Your task to perform on an android device: Go to internet settings Image 0: 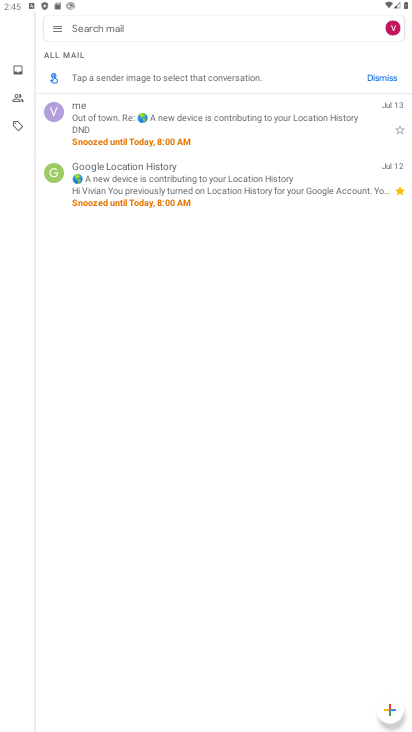
Step 0: press home button
Your task to perform on an android device: Go to internet settings Image 1: 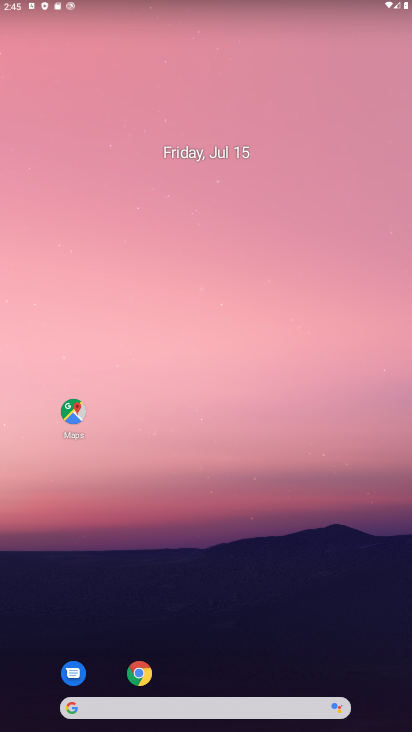
Step 1: drag from (374, 662) to (249, 56)
Your task to perform on an android device: Go to internet settings Image 2: 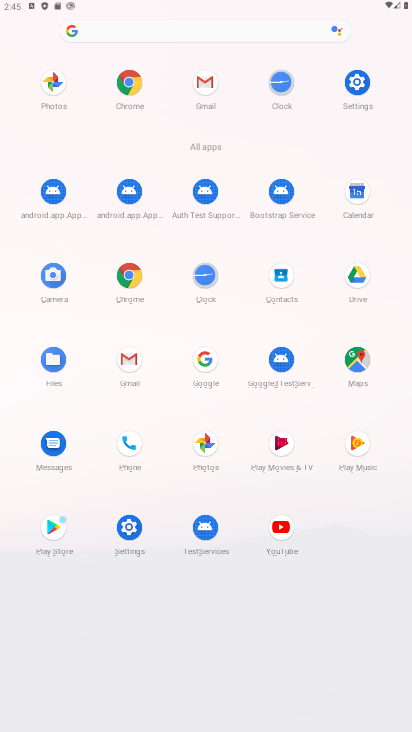
Step 2: click (129, 522)
Your task to perform on an android device: Go to internet settings Image 3: 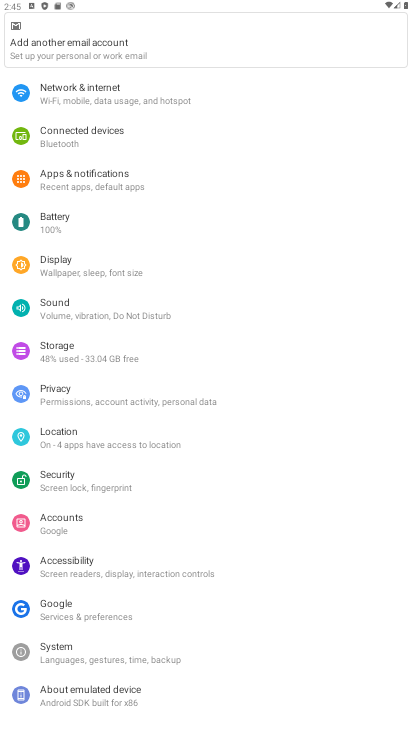
Step 3: click (88, 88)
Your task to perform on an android device: Go to internet settings Image 4: 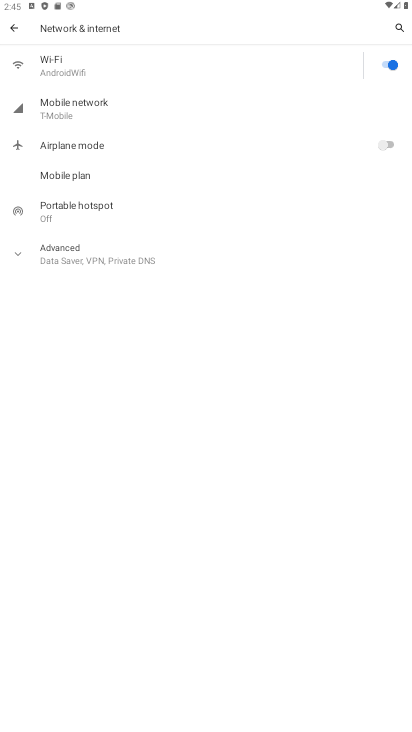
Step 4: click (53, 67)
Your task to perform on an android device: Go to internet settings Image 5: 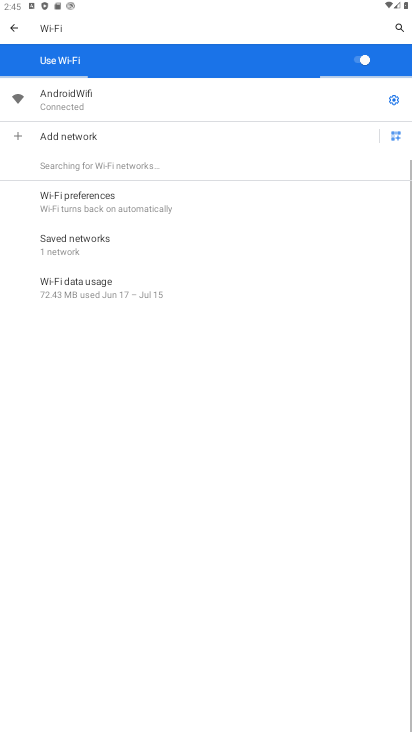
Step 5: task complete